Your task to perform on an android device: Go to Amazon Image 0: 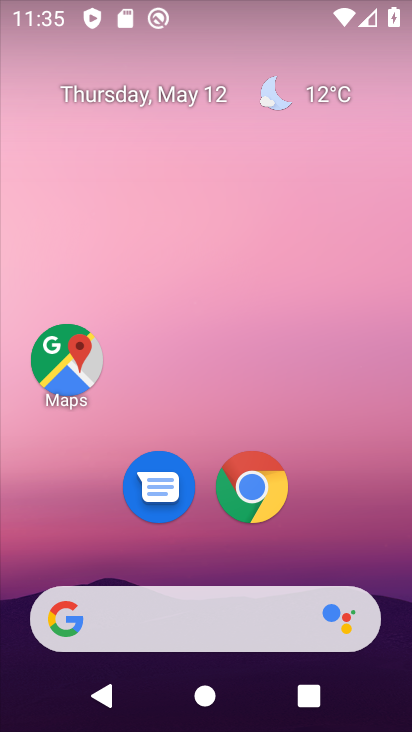
Step 0: click (247, 497)
Your task to perform on an android device: Go to Amazon Image 1: 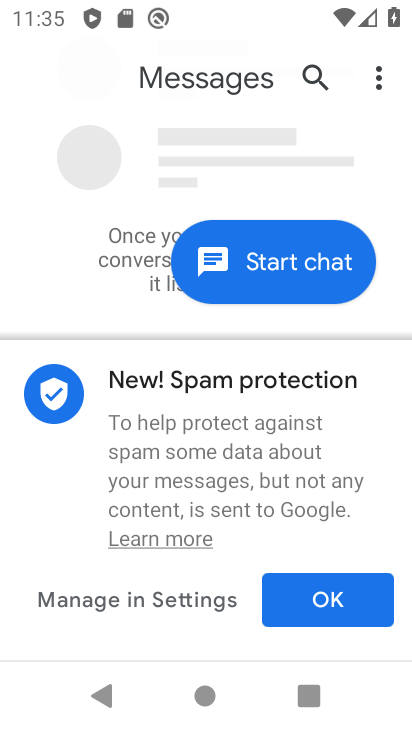
Step 1: press back button
Your task to perform on an android device: Go to Amazon Image 2: 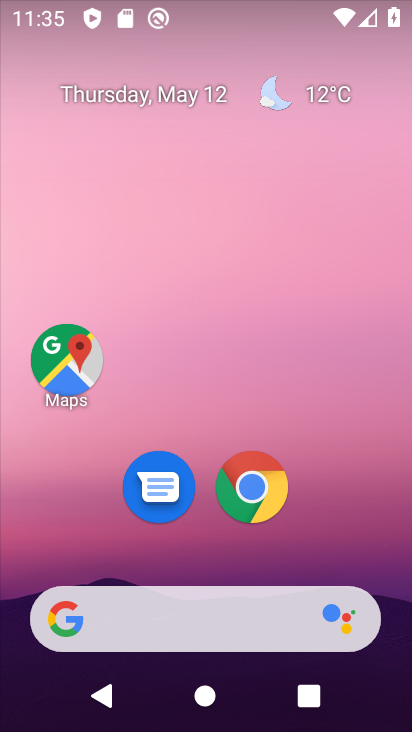
Step 2: click (266, 490)
Your task to perform on an android device: Go to Amazon Image 3: 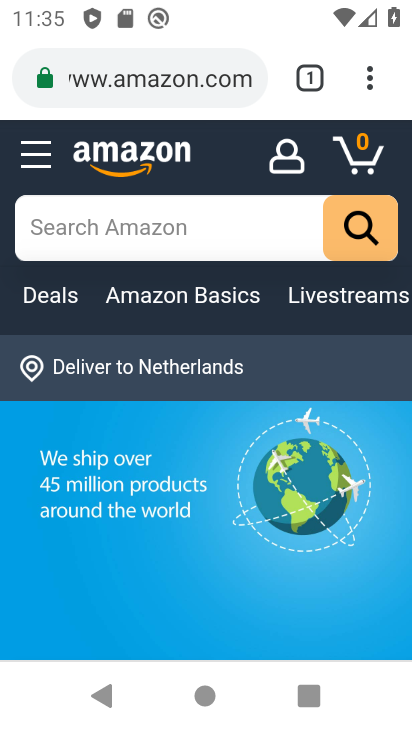
Step 3: task complete